Your task to perform on an android device: Open Google Maps Image 0: 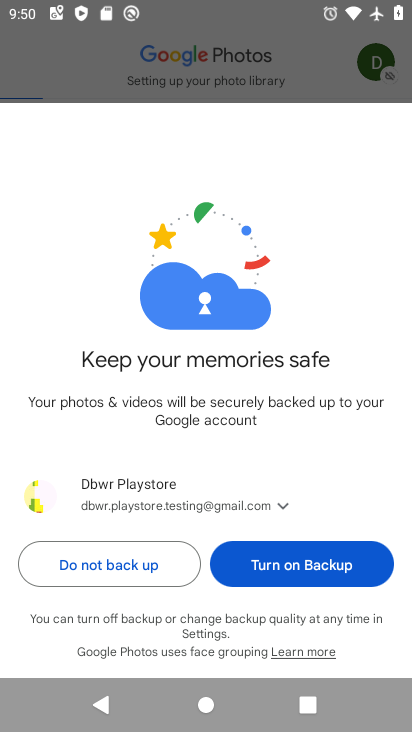
Step 0: press home button
Your task to perform on an android device: Open Google Maps Image 1: 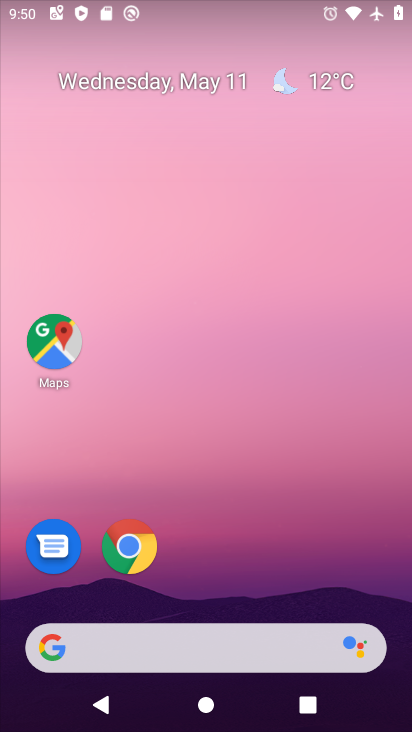
Step 1: click (57, 342)
Your task to perform on an android device: Open Google Maps Image 2: 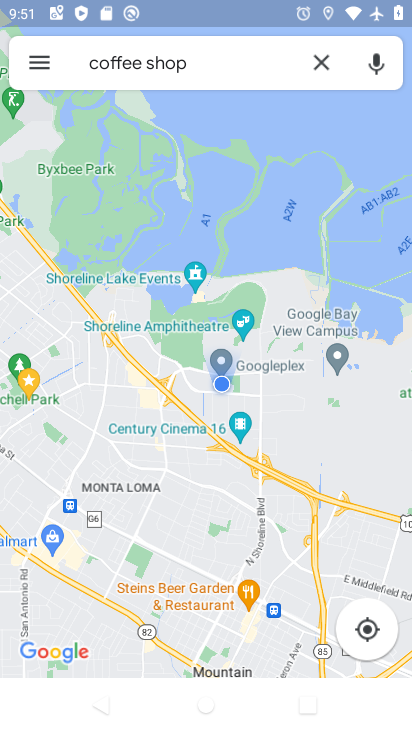
Step 2: click (315, 62)
Your task to perform on an android device: Open Google Maps Image 3: 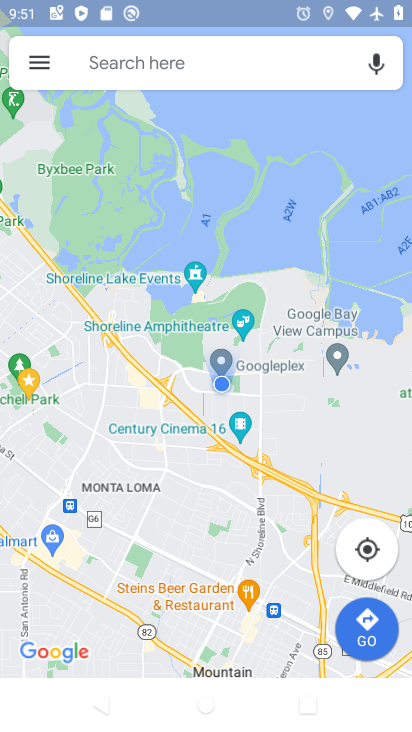
Step 3: task complete